Your task to perform on an android device: Go to Wikipedia Image 0: 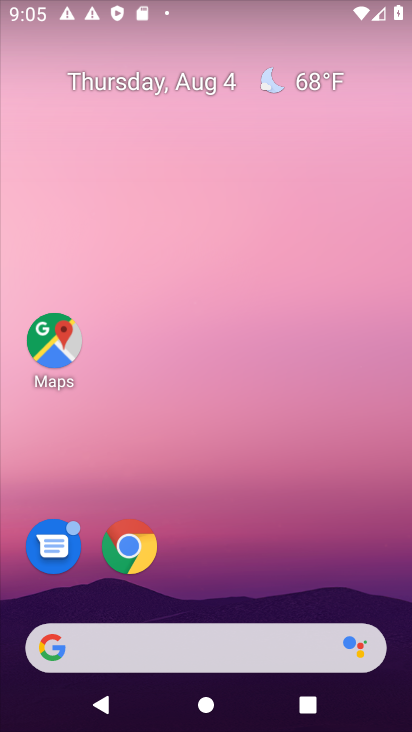
Step 0: click (55, 647)
Your task to perform on an android device: Go to Wikipedia Image 1: 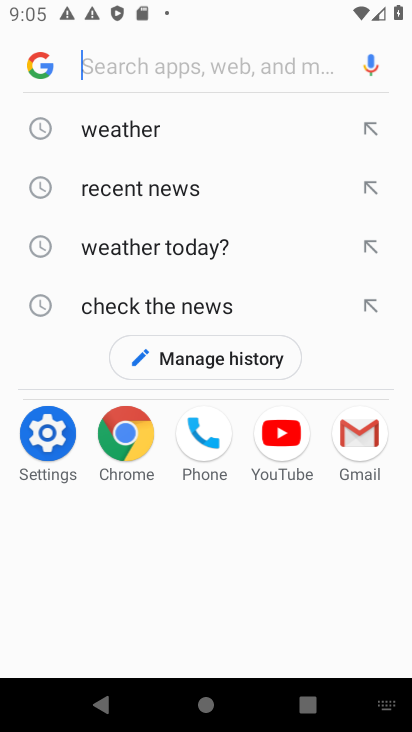
Step 1: type "Wikipedia"
Your task to perform on an android device: Go to Wikipedia Image 2: 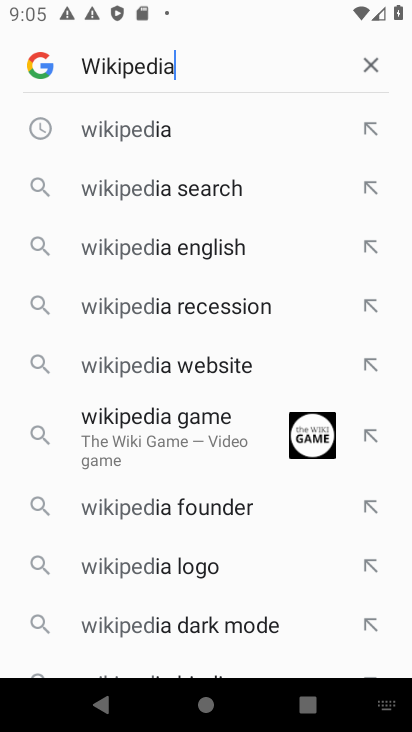
Step 2: press enter
Your task to perform on an android device: Go to Wikipedia Image 3: 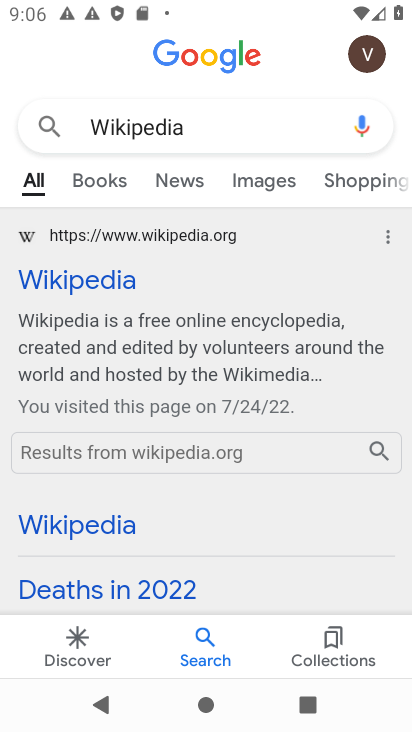
Step 3: click (84, 284)
Your task to perform on an android device: Go to Wikipedia Image 4: 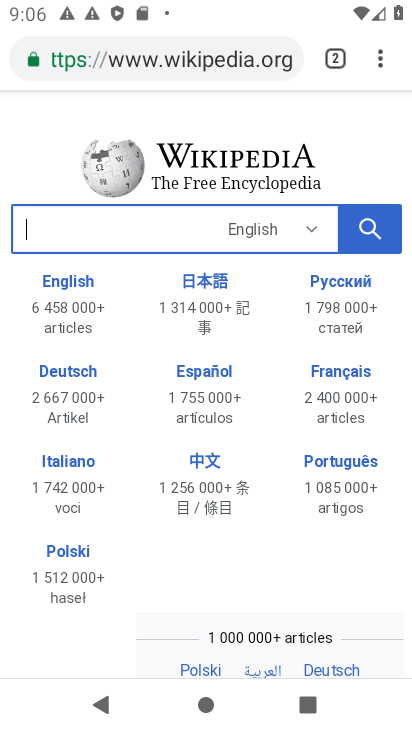
Step 4: task complete